Your task to perform on an android device: Open Google Image 0: 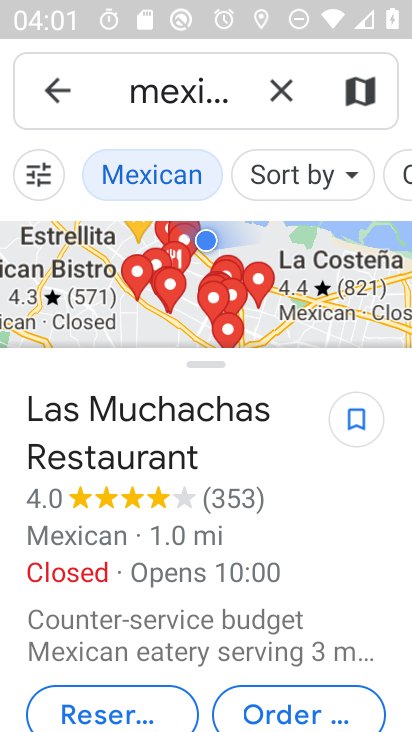
Step 0: press home button
Your task to perform on an android device: Open Google Image 1: 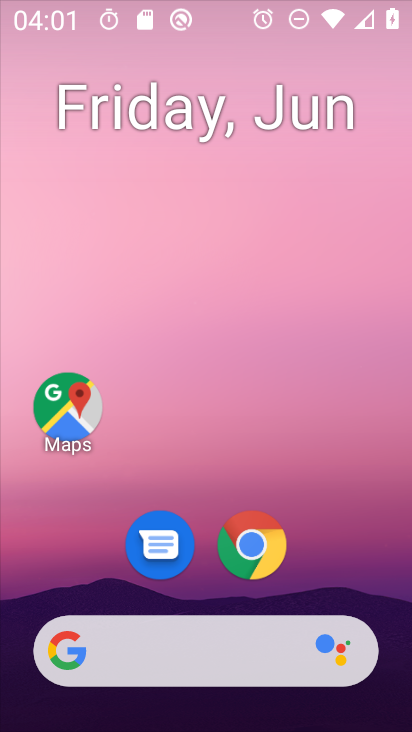
Step 1: drag from (315, 577) to (291, 81)
Your task to perform on an android device: Open Google Image 2: 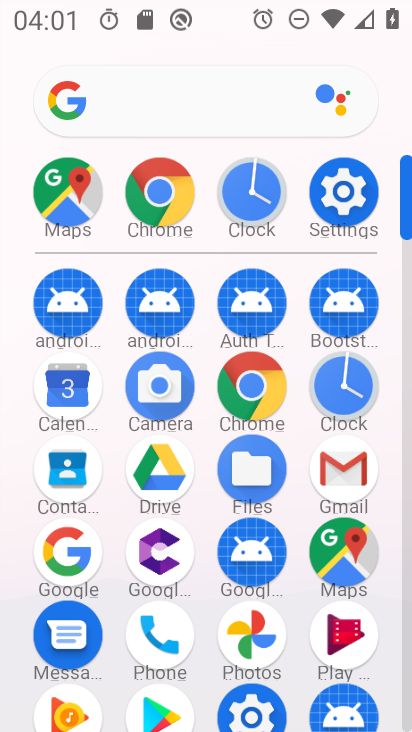
Step 2: click (79, 536)
Your task to perform on an android device: Open Google Image 3: 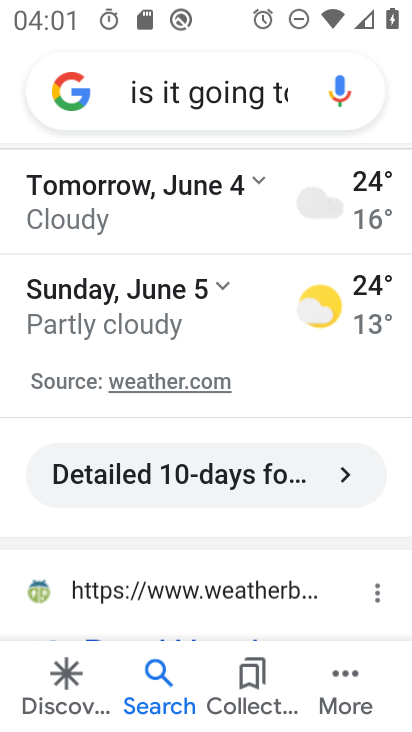
Step 3: task complete